Your task to perform on an android device: toggle airplane mode Image 0: 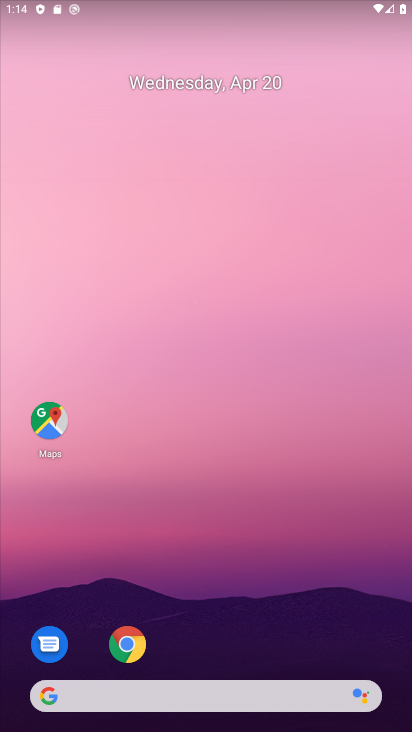
Step 0: drag from (204, 696) to (277, 173)
Your task to perform on an android device: toggle airplane mode Image 1: 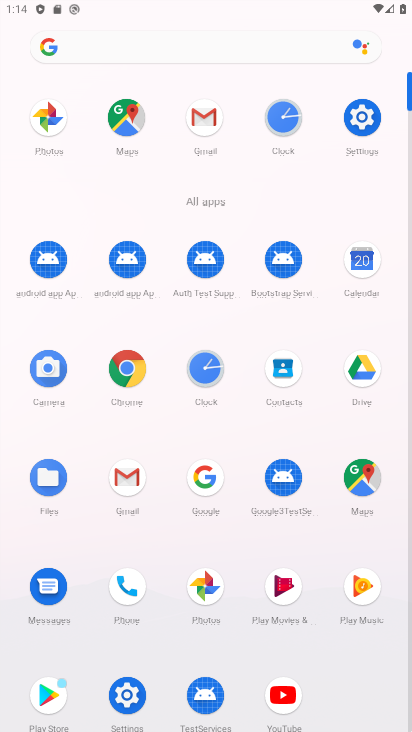
Step 1: click (357, 128)
Your task to perform on an android device: toggle airplane mode Image 2: 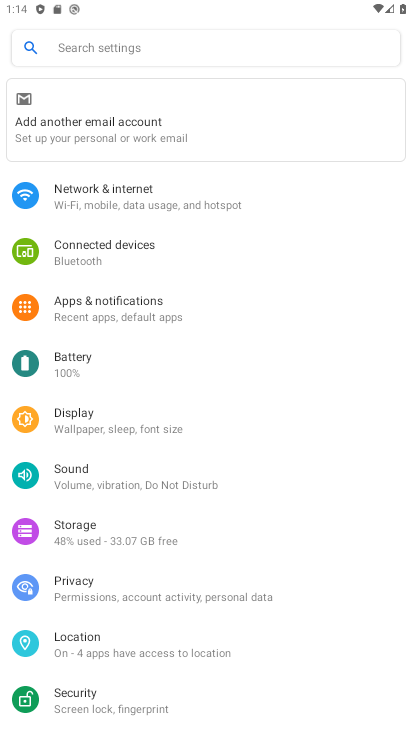
Step 2: click (142, 197)
Your task to perform on an android device: toggle airplane mode Image 3: 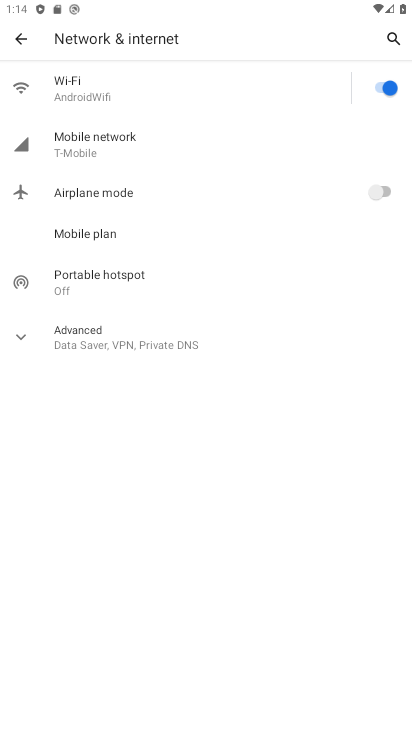
Step 3: click (387, 189)
Your task to perform on an android device: toggle airplane mode Image 4: 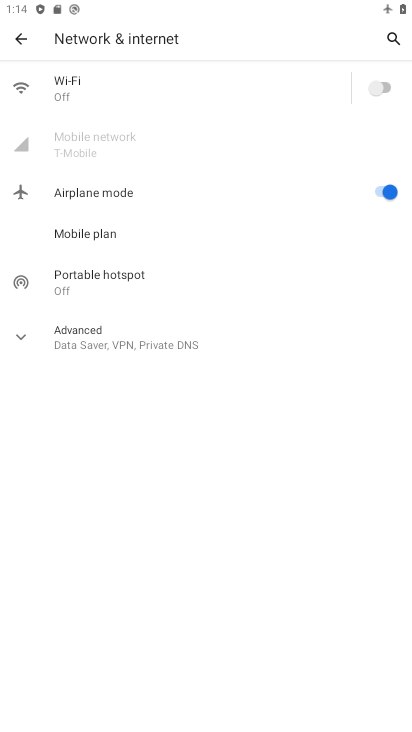
Step 4: task complete